Your task to perform on an android device: Open the phone app and click the voicemail tab. Image 0: 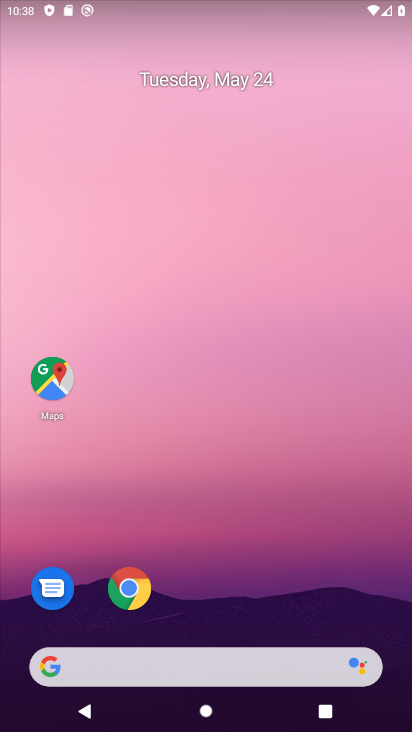
Step 0: drag from (264, 618) to (197, 318)
Your task to perform on an android device: Open the phone app and click the voicemail tab. Image 1: 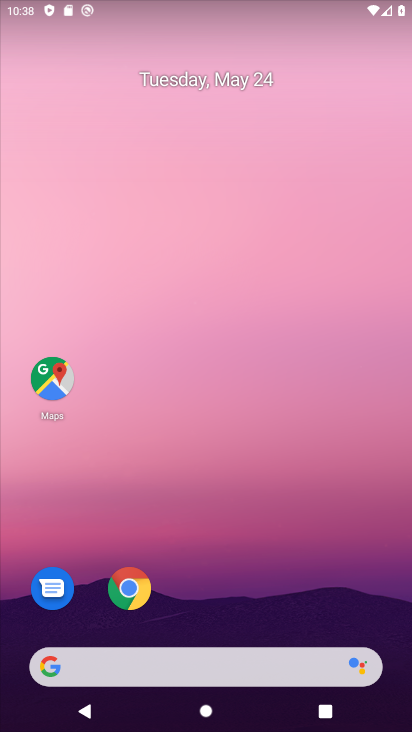
Step 1: drag from (219, 606) to (156, 244)
Your task to perform on an android device: Open the phone app and click the voicemail tab. Image 2: 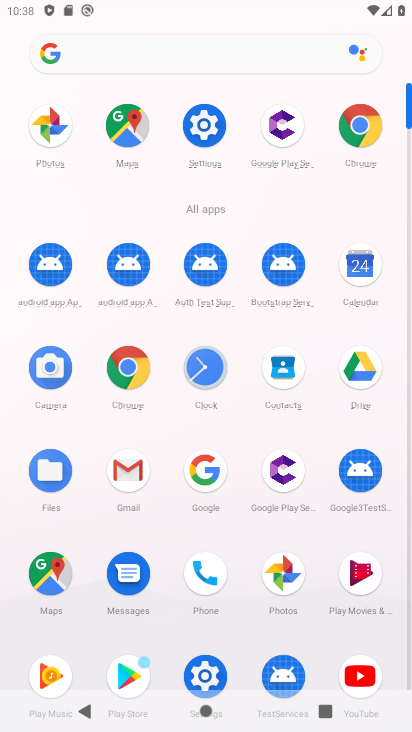
Step 2: click (218, 578)
Your task to perform on an android device: Open the phone app and click the voicemail tab. Image 3: 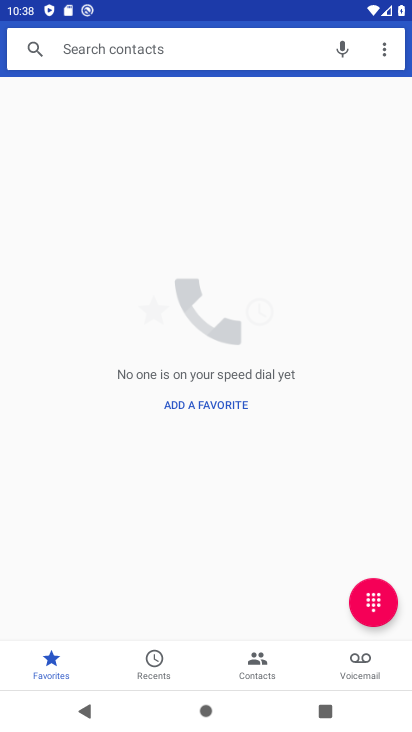
Step 3: click (353, 673)
Your task to perform on an android device: Open the phone app and click the voicemail tab. Image 4: 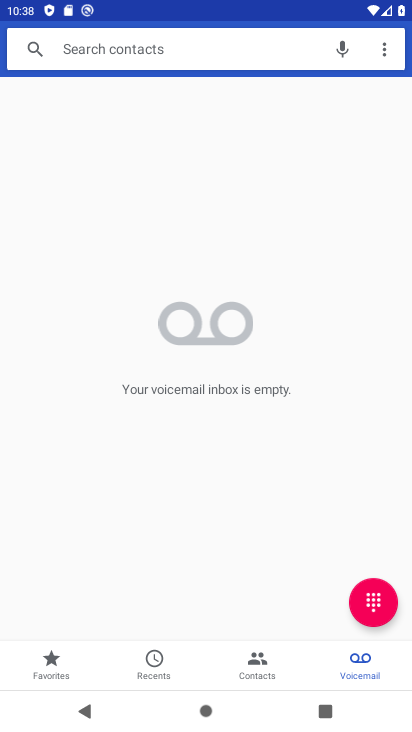
Step 4: task complete